Your task to perform on an android device: Open Google Chrome and open the bookmarks view Image 0: 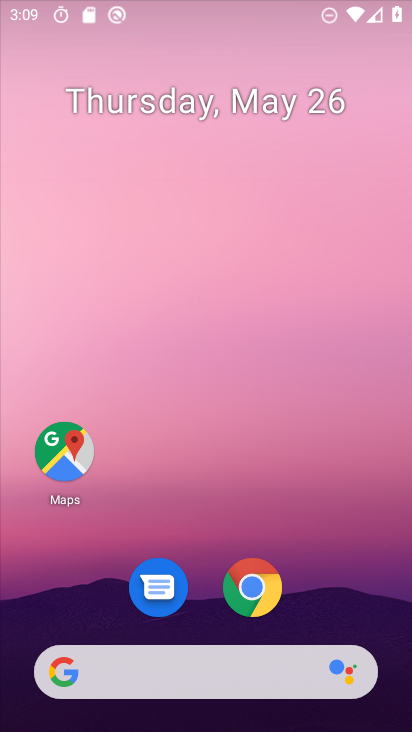
Step 0: drag from (326, 527) to (349, 169)
Your task to perform on an android device: Open Google Chrome and open the bookmarks view Image 1: 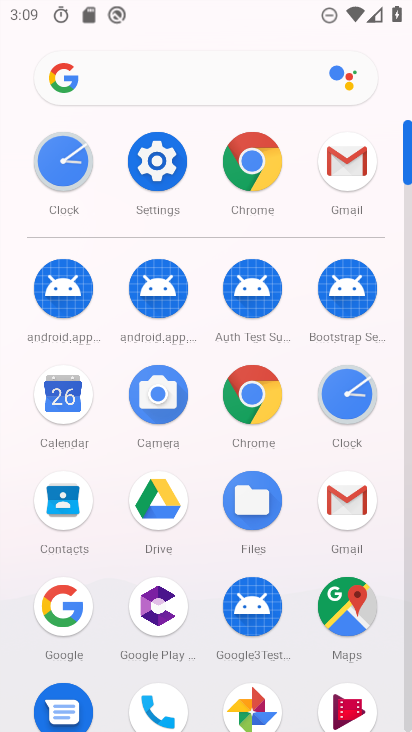
Step 1: click (251, 157)
Your task to perform on an android device: Open Google Chrome and open the bookmarks view Image 2: 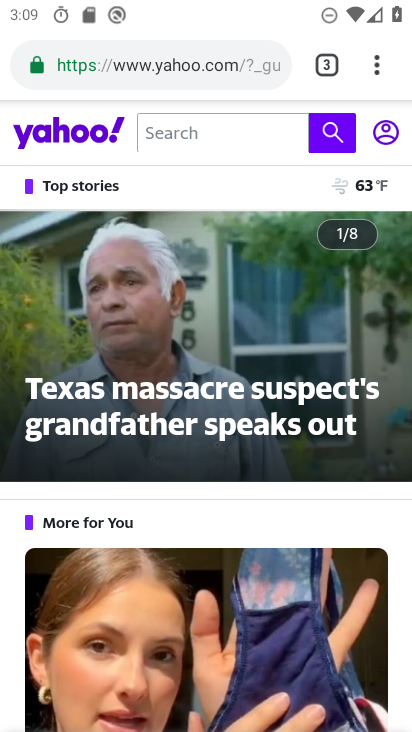
Step 2: task complete